Your task to perform on an android device: read, delete, or share a saved page in the chrome app Image 0: 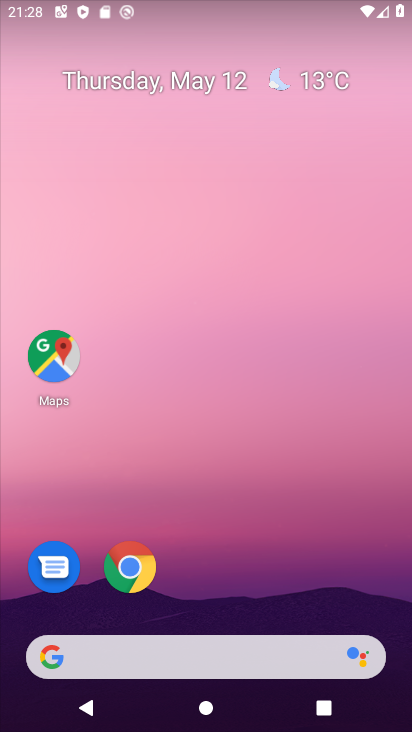
Step 0: click (129, 561)
Your task to perform on an android device: read, delete, or share a saved page in the chrome app Image 1: 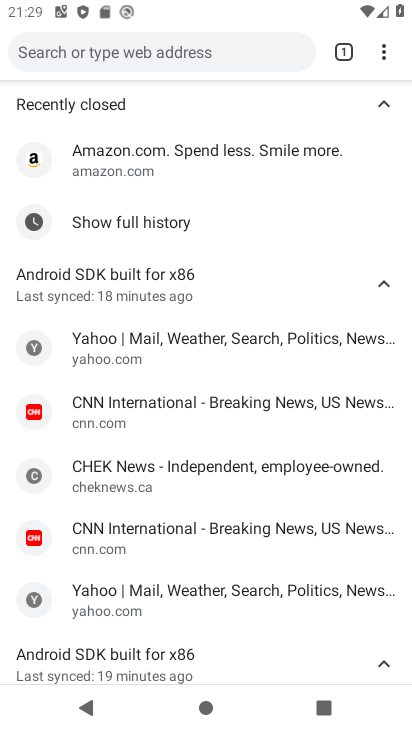
Step 1: click (385, 54)
Your task to perform on an android device: read, delete, or share a saved page in the chrome app Image 2: 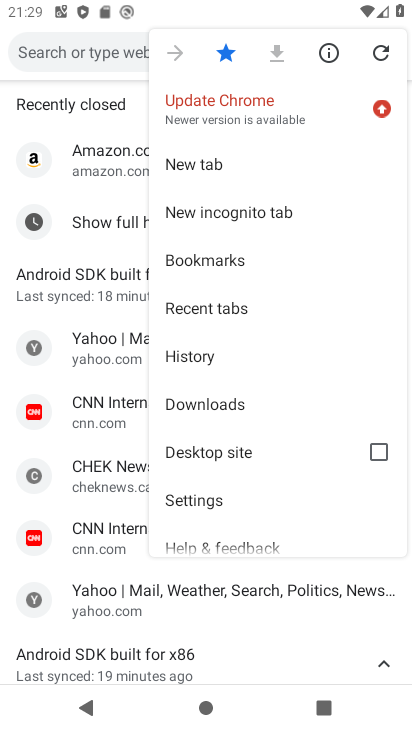
Step 2: click (255, 397)
Your task to perform on an android device: read, delete, or share a saved page in the chrome app Image 3: 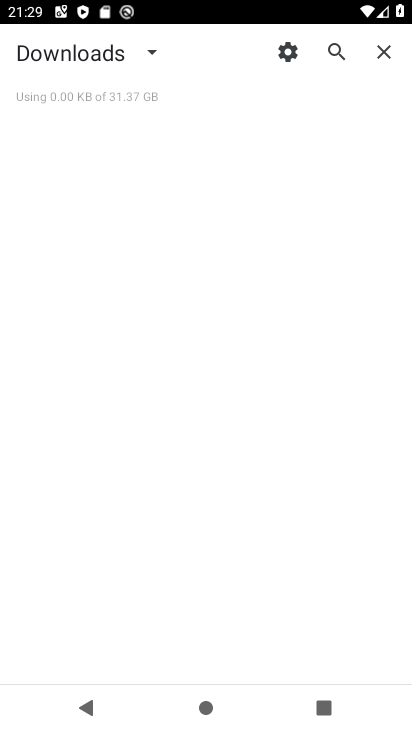
Step 3: task complete